Your task to perform on an android device: What's the weather going to be this weekend? Image 0: 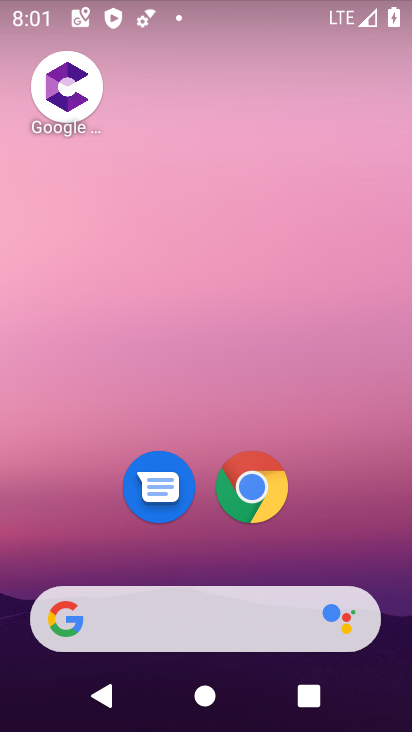
Step 0: drag from (197, 542) to (388, 1)
Your task to perform on an android device: What's the weather going to be this weekend? Image 1: 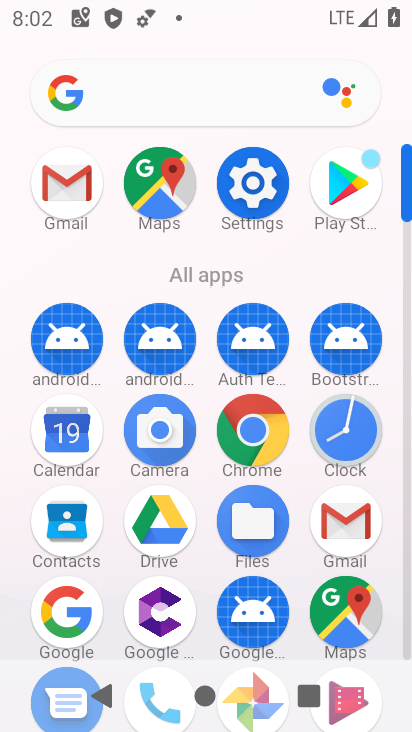
Step 1: drag from (204, 660) to (230, 262)
Your task to perform on an android device: What's the weather going to be this weekend? Image 2: 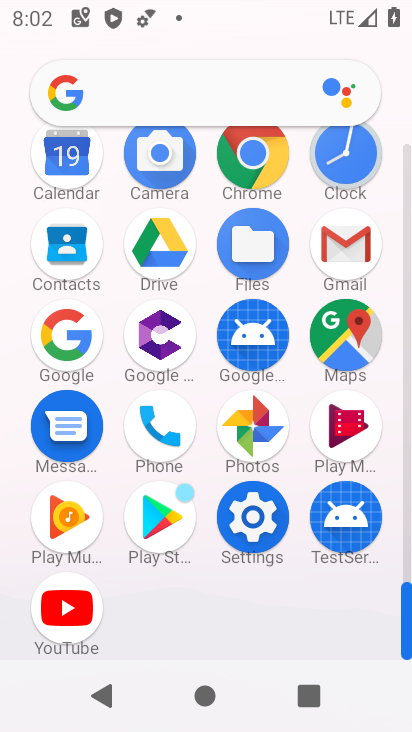
Step 2: click (242, 91)
Your task to perform on an android device: What's the weather going to be this weekend? Image 3: 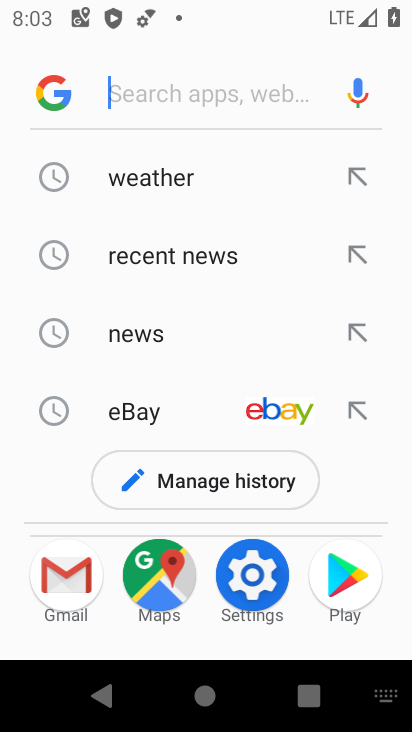
Step 3: click (147, 92)
Your task to perform on an android device: What's the weather going to be this weekend? Image 4: 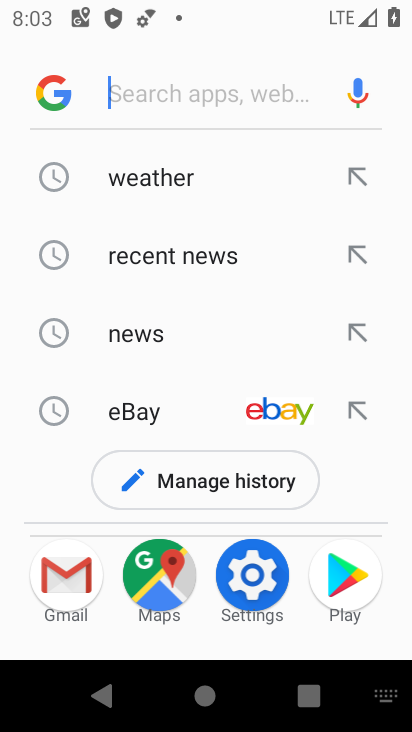
Step 4: type "weather going to be this weekend"
Your task to perform on an android device: What's the weather going to be this weekend? Image 5: 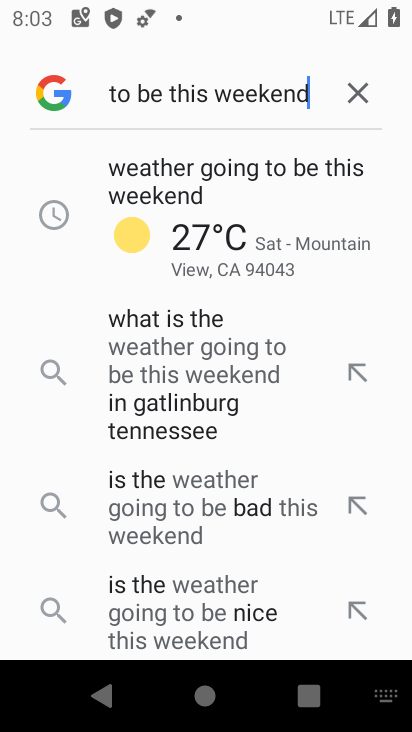
Step 5: click (174, 170)
Your task to perform on an android device: What's the weather going to be this weekend? Image 6: 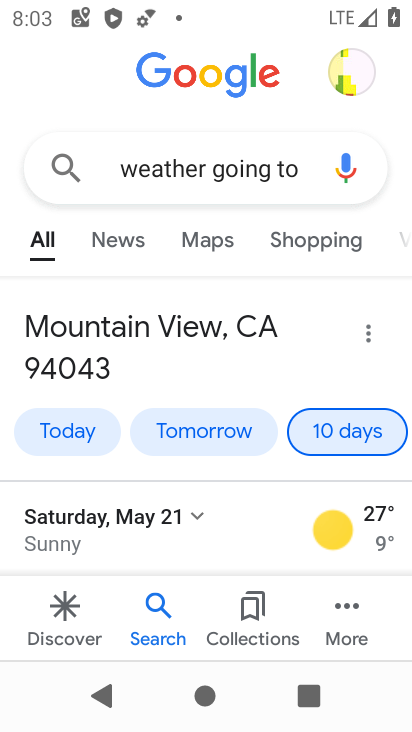
Step 6: task complete